Your task to perform on an android device: add a contact in the contacts app Image 0: 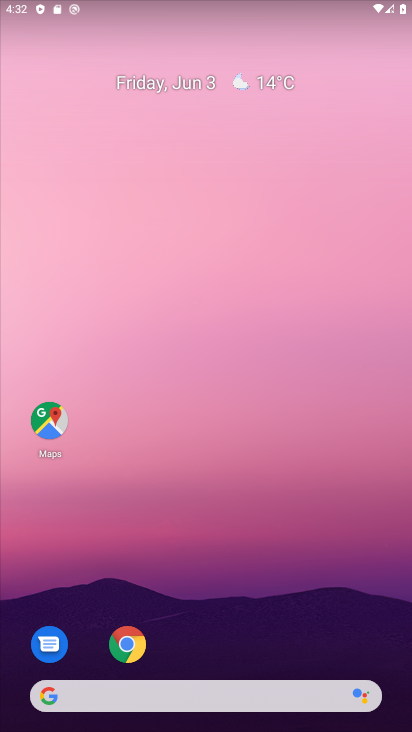
Step 0: click (234, 648)
Your task to perform on an android device: add a contact in the contacts app Image 1: 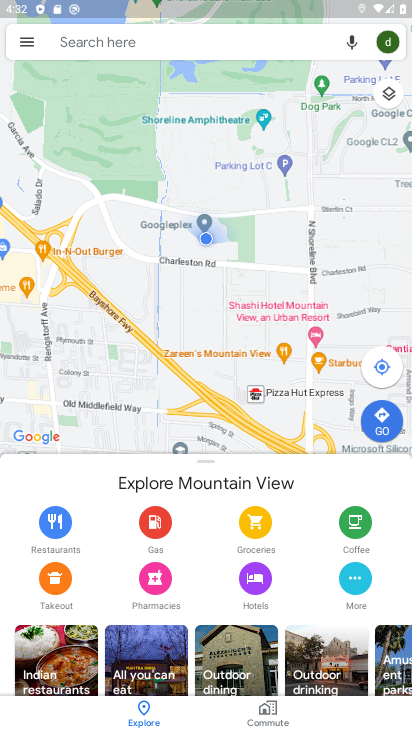
Step 1: press home button
Your task to perform on an android device: add a contact in the contacts app Image 2: 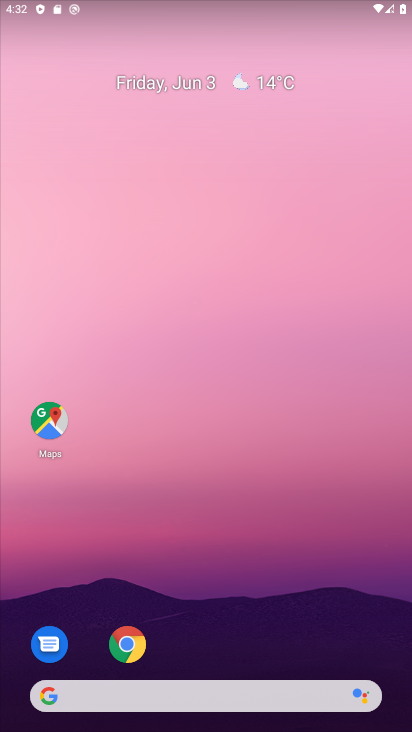
Step 2: drag from (202, 635) to (175, 172)
Your task to perform on an android device: add a contact in the contacts app Image 3: 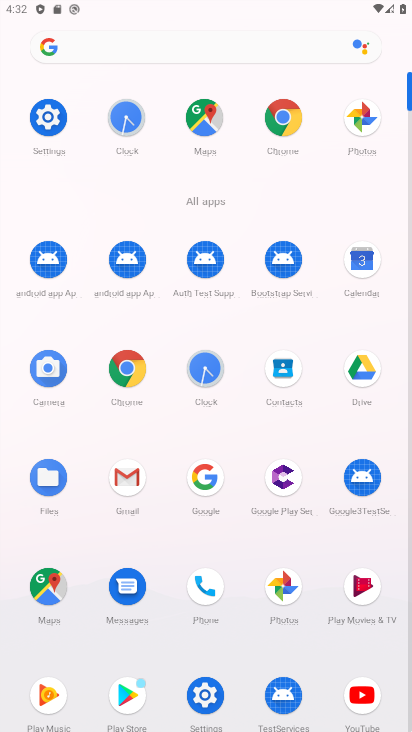
Step 3: click (207, 598)
Your task to perform on an android device: add a contact in the contacts app Image 4: 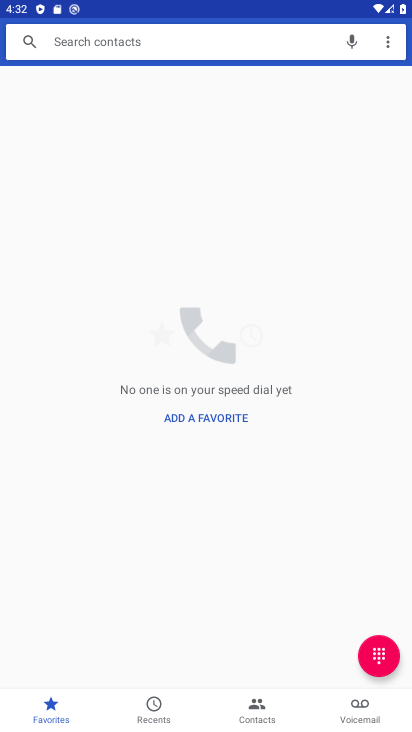
Step 4: click (276, 708)
Your task to perform on an android device: add a contact in the contacts app Image 5: 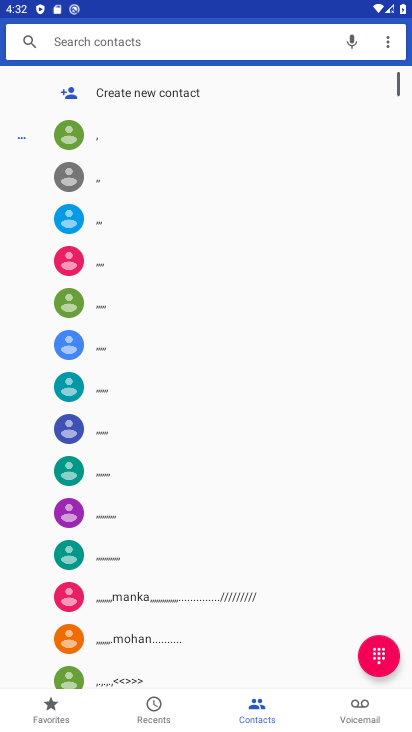
Step 5: click (174, 99)
Your task to perform on an android device: add a contact in the contacts app Image 6: 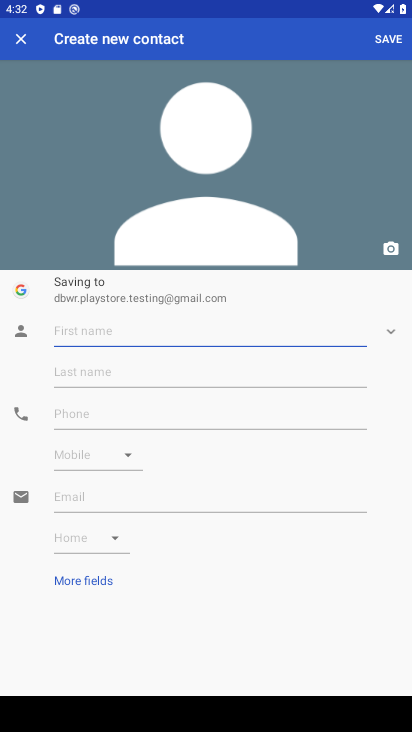
Step 6: type "olum"
Your task to perform on an android device: add a contact in the contacts app Image 7: 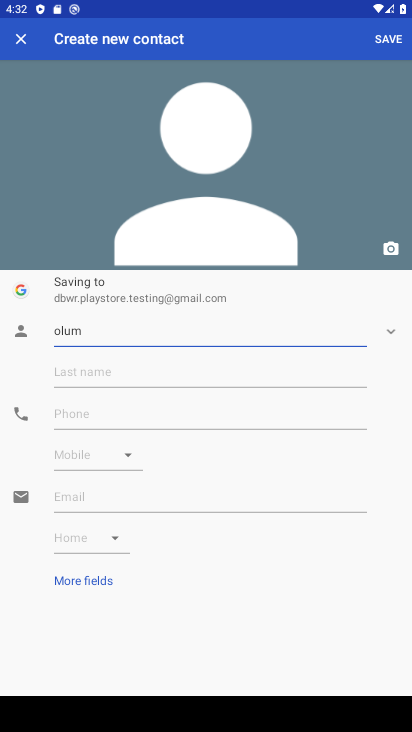
Step 7: click (94, 416)
Your task to perform on an android device: add a contact in the contacts app Image 8: 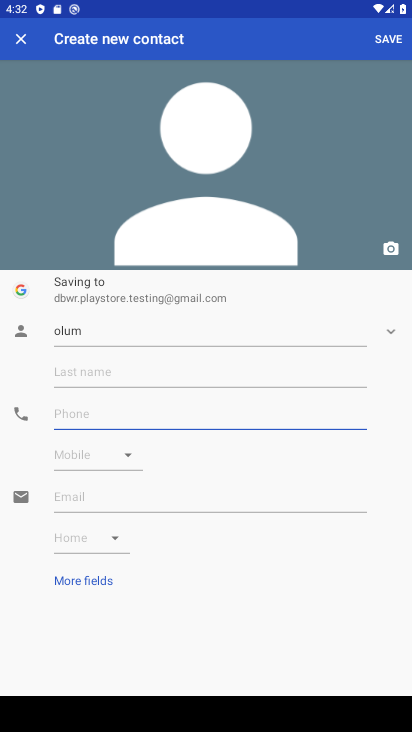
Step 8: type "98765"
Your task to perform on an android device: add a contact in the contacts app Image 9: 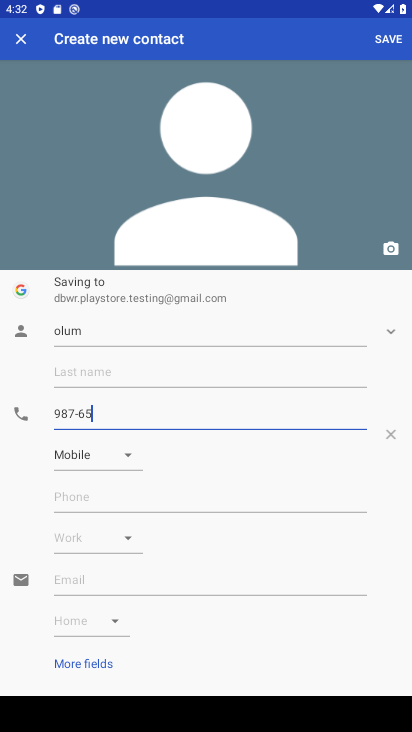
Step 9: click (381, 31)
Your task to perform on an android device: add a contact in the contacts app Image 10: 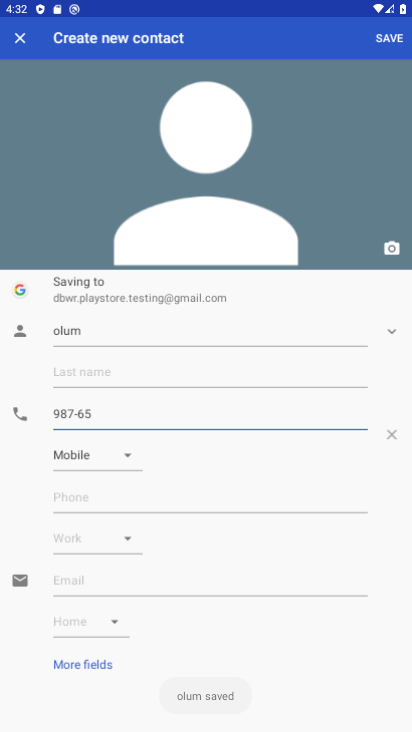
Step 10: click (383, 35)
Your task to perform on an android device: add a contact in the contacts app Image 11: 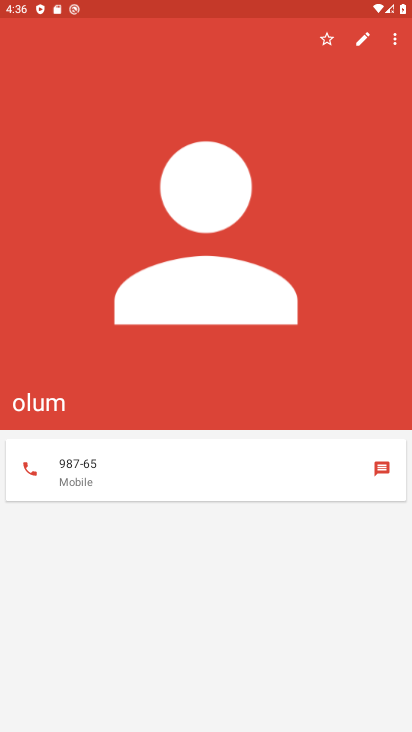
Step 11: task complete